Your task to perform on an android device: add a label to a message in the gmail app Image 0: 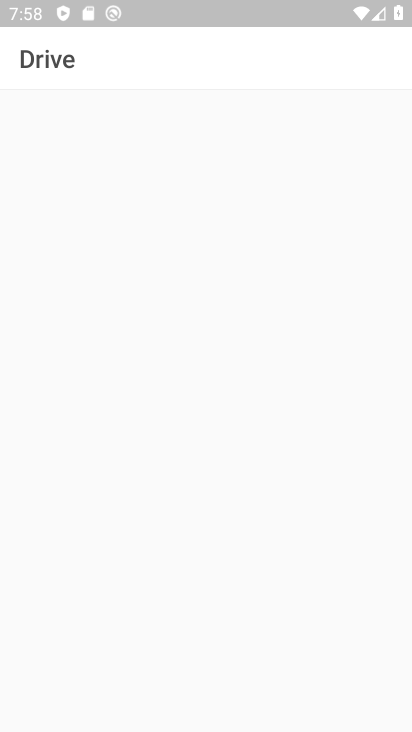
Step 0: press home button
Your task to perform on an android device: add a label to a message in the gmail app Image 1: 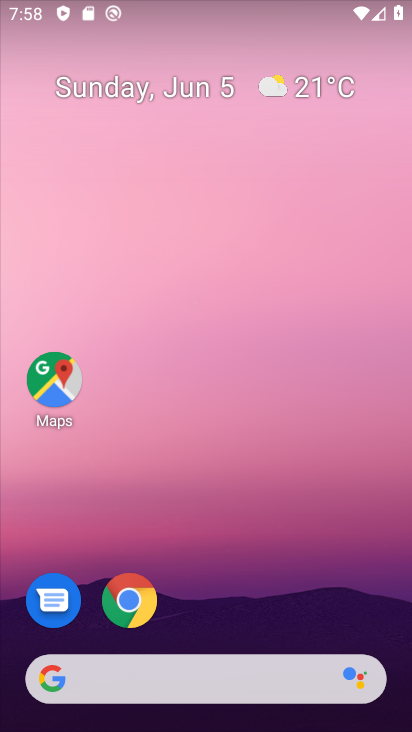
Step 1: drag from (285, 582) to (296, 0)
Your task to perform on an android device: add a label to a message in the gmail app Image 2: 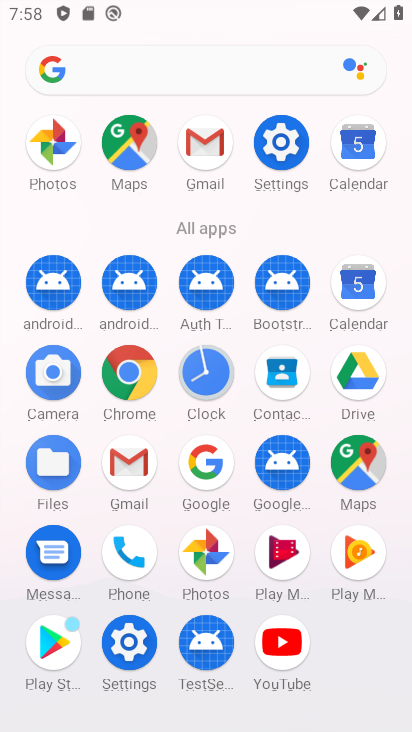
Step 2: click (128, 460)
Your task to perform on an android device: add a label to a message in the gmail app Image 3: 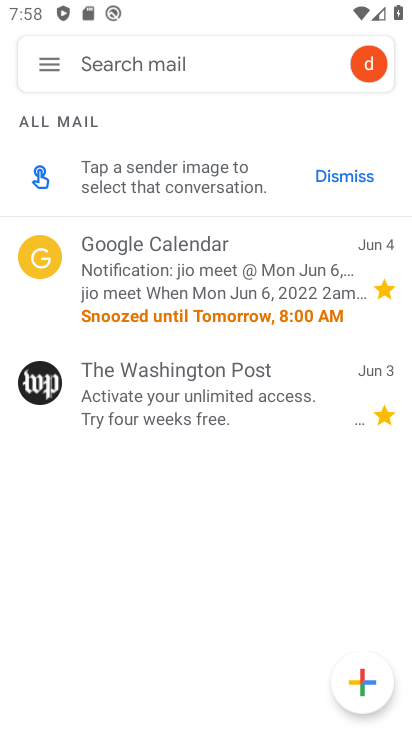
Step 3: click (185, 306)
Your task to perform on an android device: add a label to a message in the gmail app Image 4: 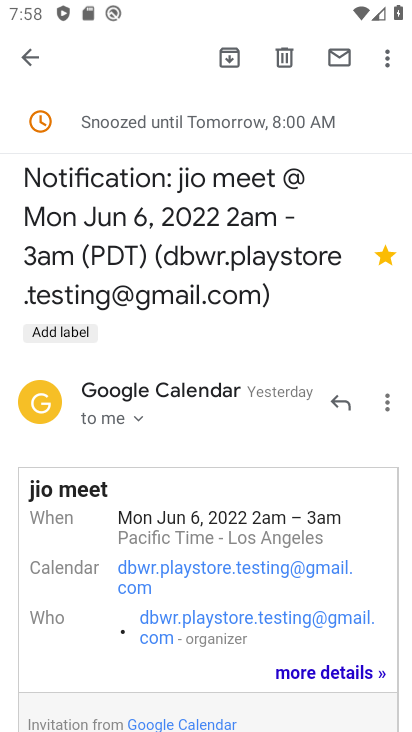
Step 4: click (80, 334)
Your task to perform on an android device: add a label to a message in the gmail app Image 5: 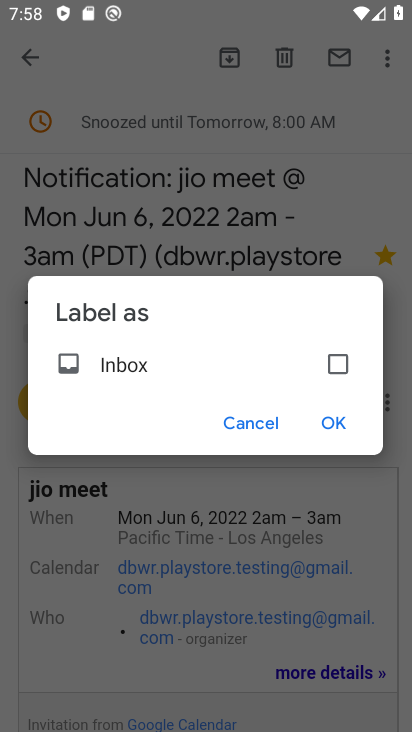
Step 5: click (338, 367)
Your task to perform on an android device: add a label to a message in the gmail app Image 6: 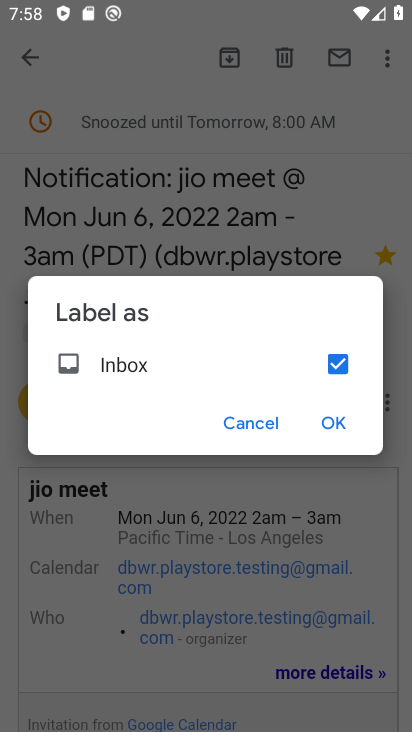
Step 6: click (324, 414)
Your task to perform on an android device: add a label to a message in the gmail app Image 7: 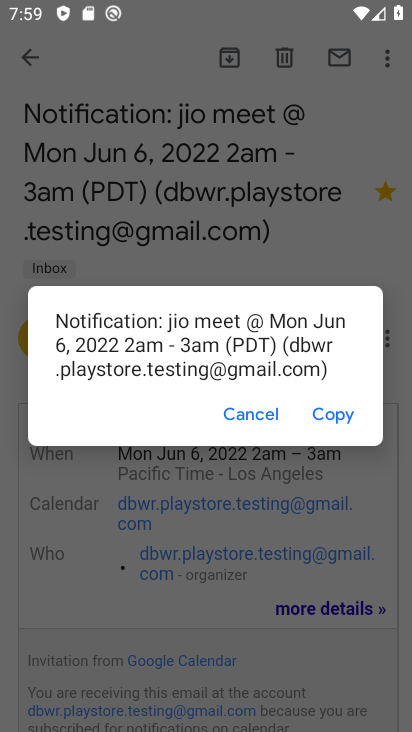
Step 7: task complete